Your task to perform on an android device: turn pop-ups off in chrome Image 0: 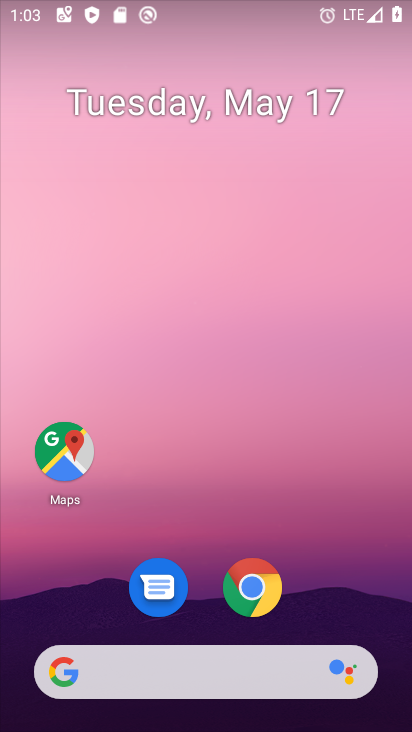
Step 0: drag from (380, 668) to (283, 2)
Your task to perform on an android device: turn pop-ups off in chrome Image 1: 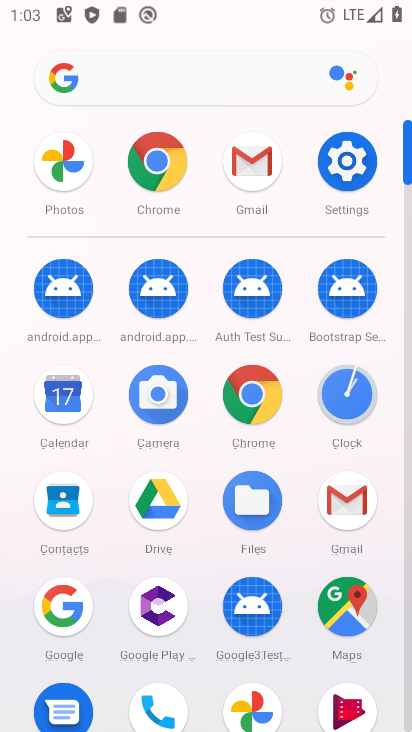
Step 1: click (150, 165)
Your task to perform on an android device: turn pop-ups off in chrome Image 2: 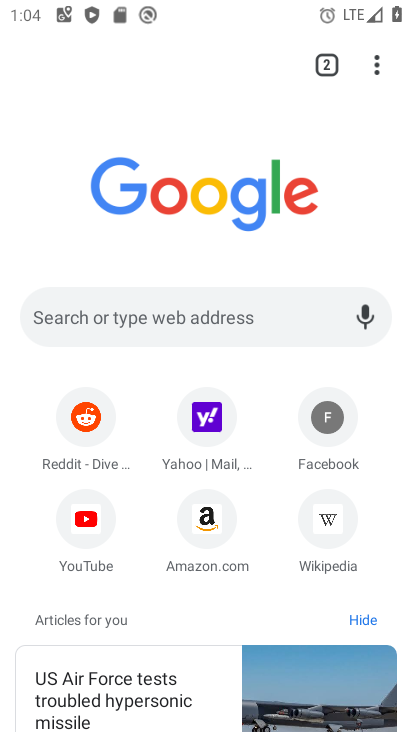
Step 2: click (378, 57)
Your task to perform on an android device: turn pop-ups off in chrome Image 3: 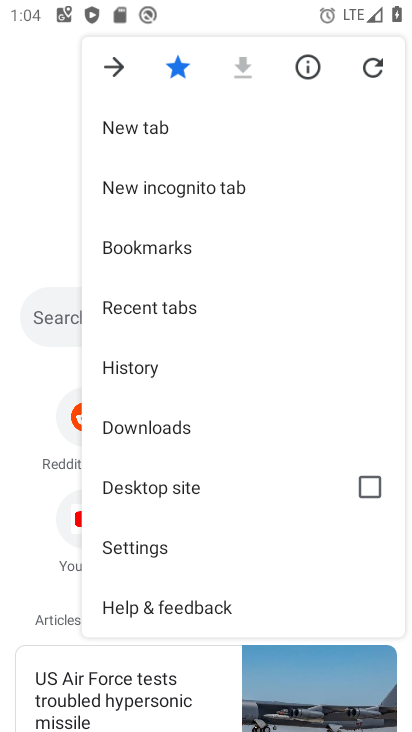
Step 3: click (226, 554)
Your task to perform on an android device: turn pop-ups off in chrome Image 4: 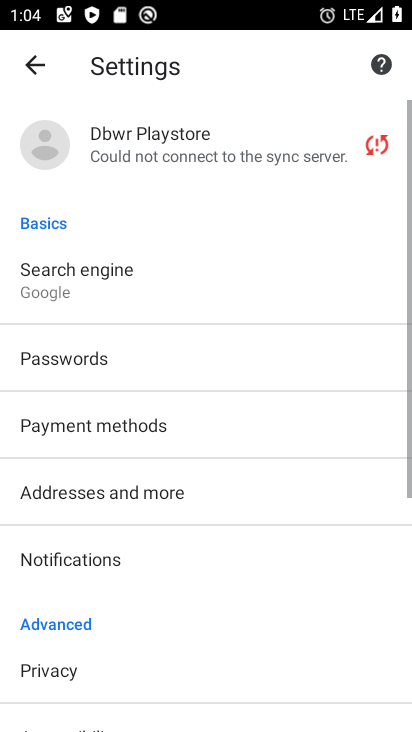
Step 4: drag from (113, 671) to (225, 179)
Your task to perform on an android device: turn pop-ups off in chrome Image 5: 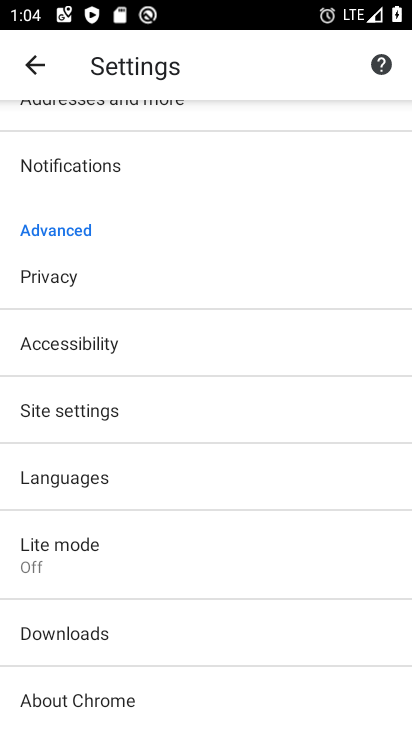
Step 5: click (178, 420)
Your task to perform on an android device: turn pop-ups off in chrome Image 6: 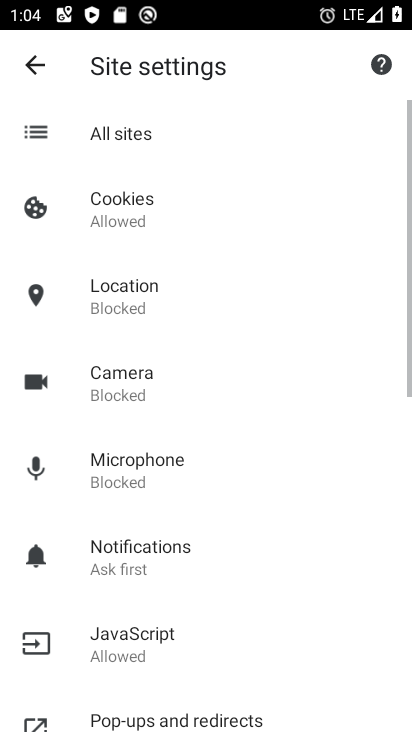
Step 6: click (176, 709)
Your task to perform on an android device: turn pop-ups off in chrome Image 7: 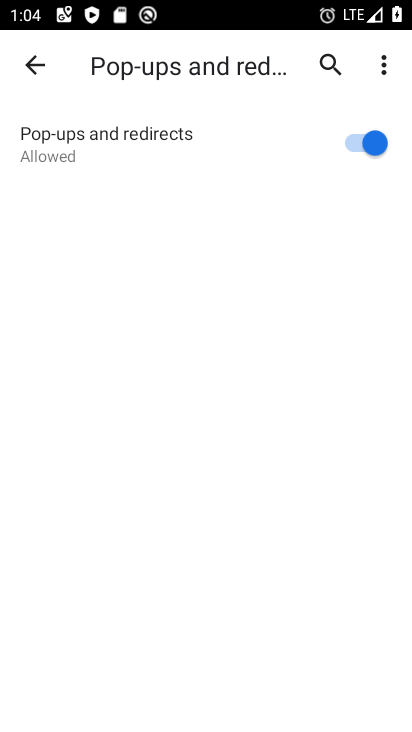
Step 7: click (357, 133)
Your task to perform on an android device: turn pop-ups off in chrome Image 8: 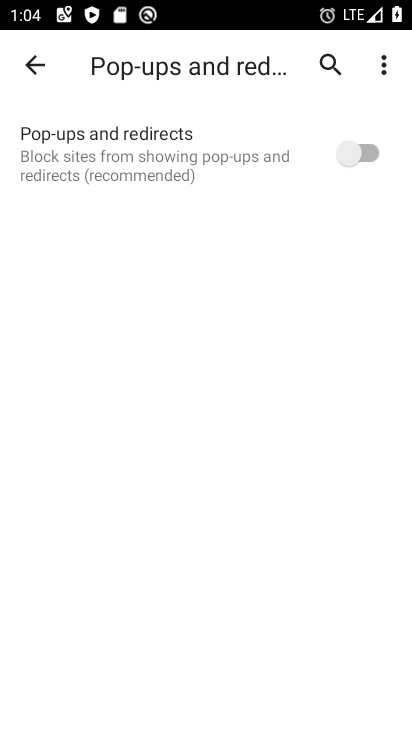
Step 8: task complete